Your task to perform on an android device: all mails in gmail Image 0: 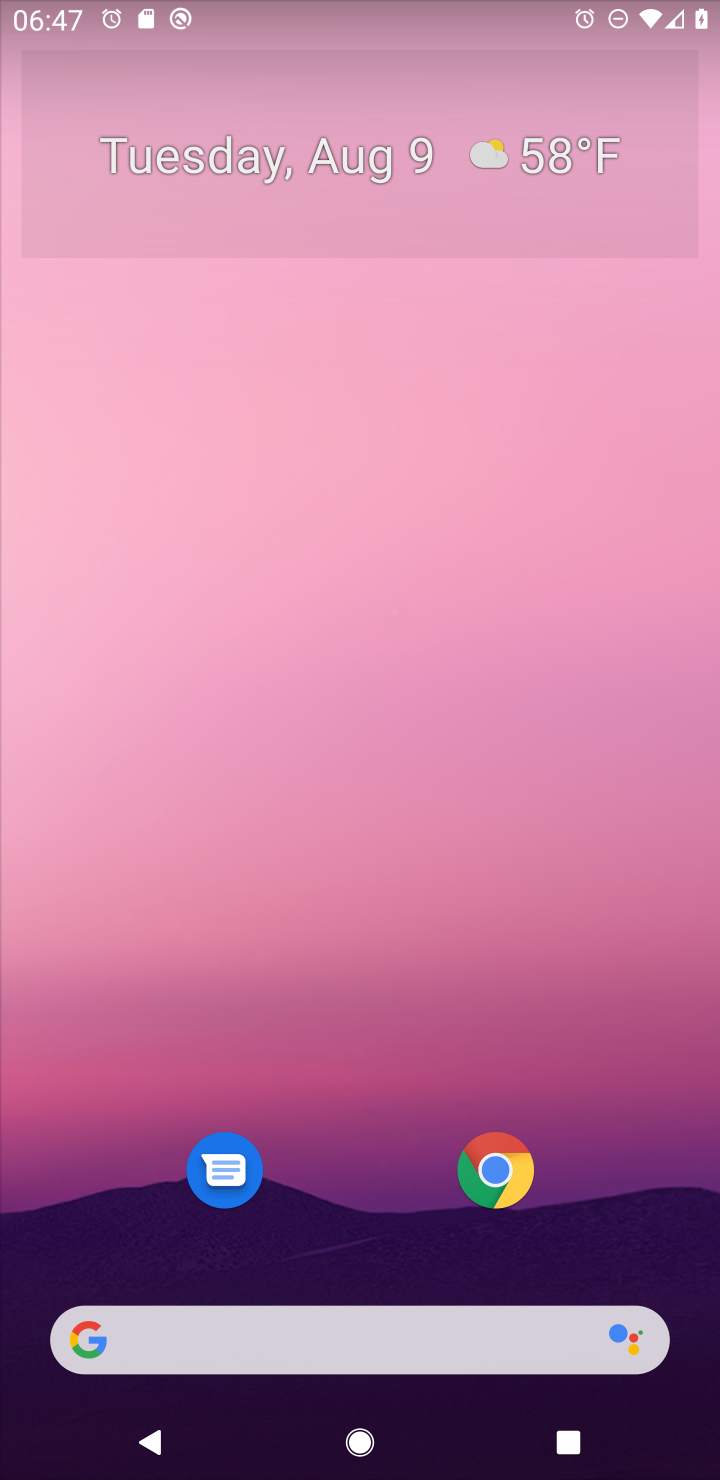
Step 0: press home button
Your task to perform on an android device: all mails in gmail Image 1: 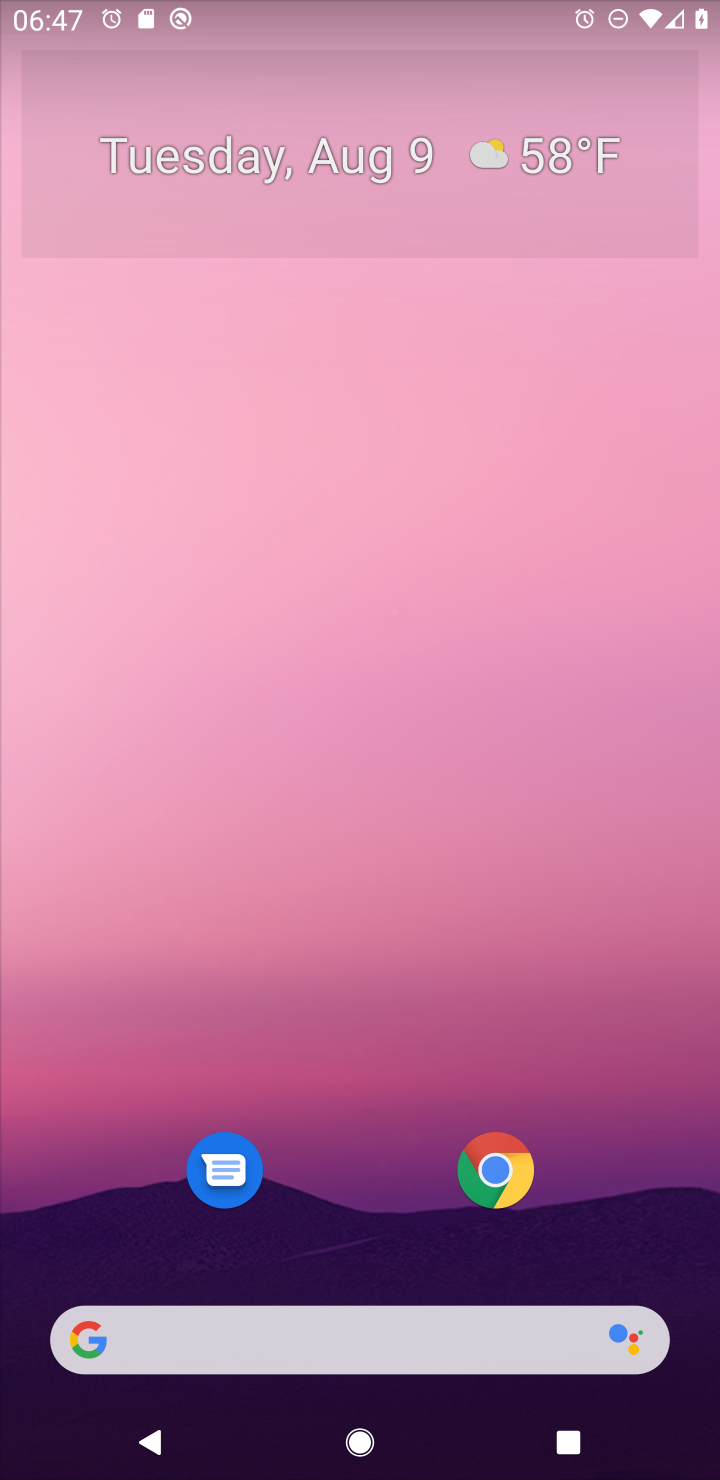
Step 1: drag from (387, 1243) to (412, 297)
Your task to perform on an android device: all mails in gmail Image 2: 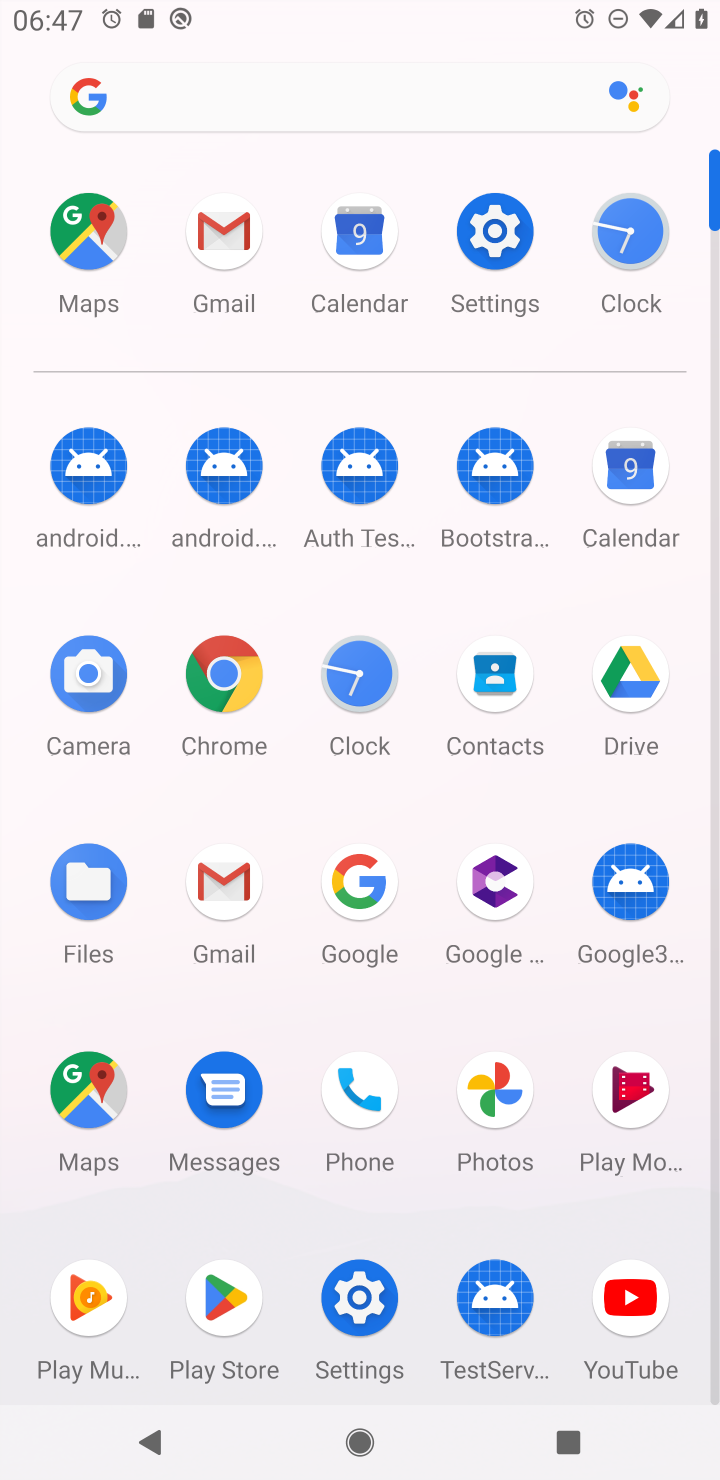
Step 2: click (225, 229)
Your task to perform on an android device: all mails in gmail Image 3: 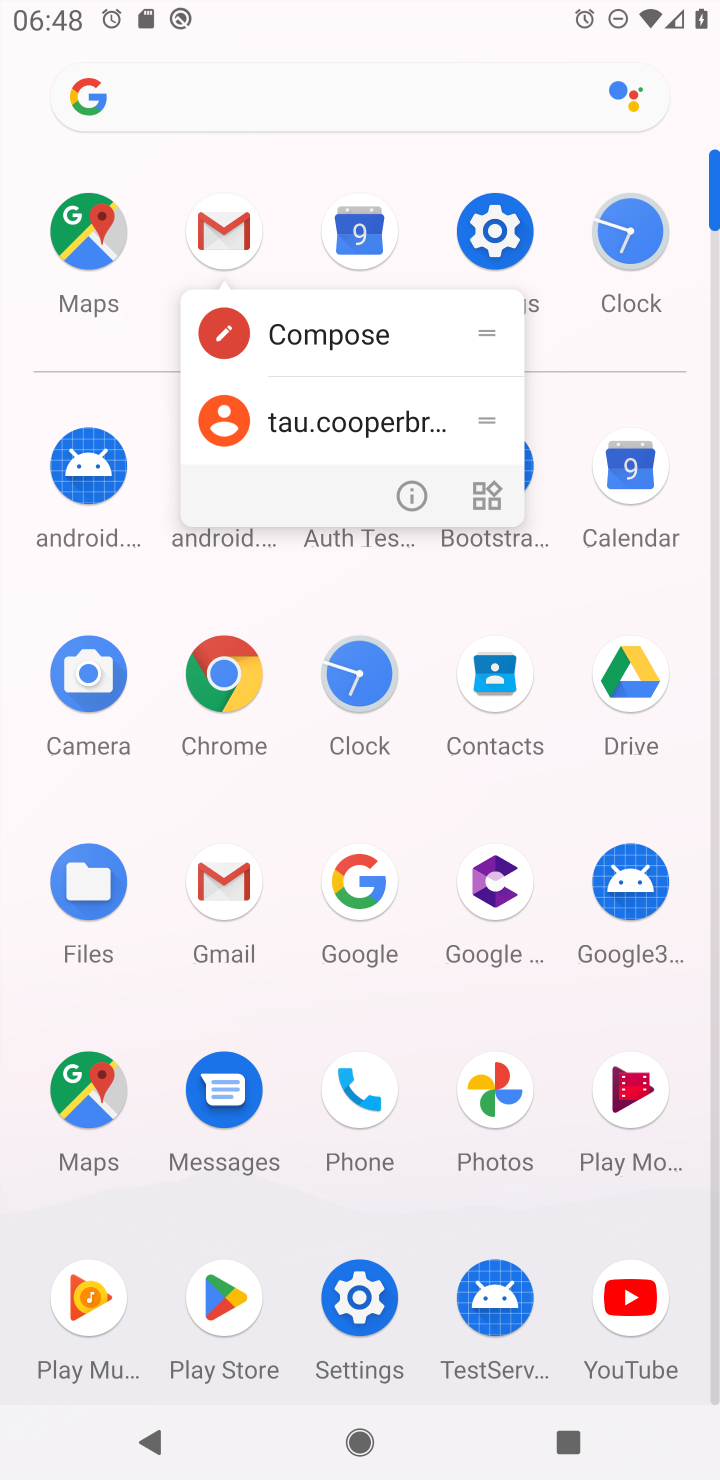
Step 3: click (236, 222)
Your task to perform on an android device: all mails in gmail Image 4: 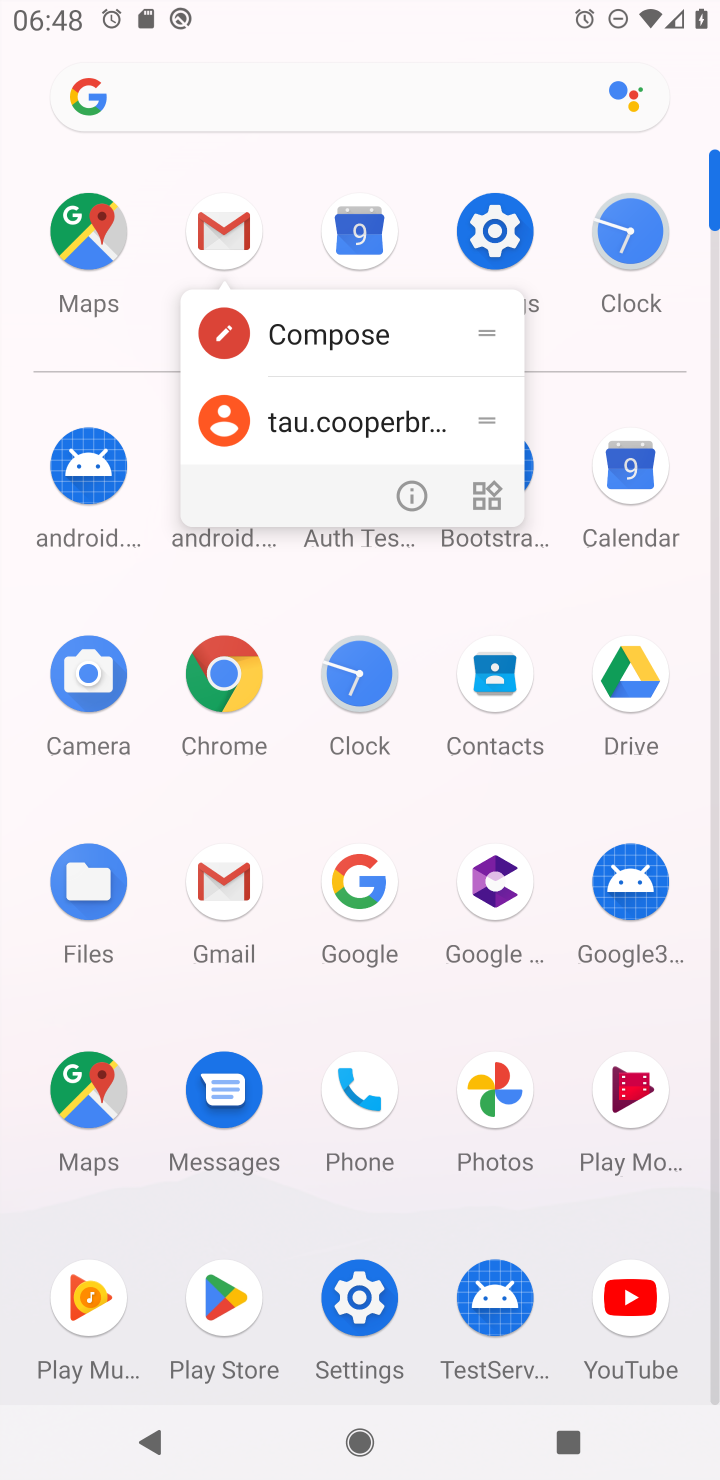
Step 4: click (236, 228)
Your task to perform on an android device: all mails in gmail Image 5: 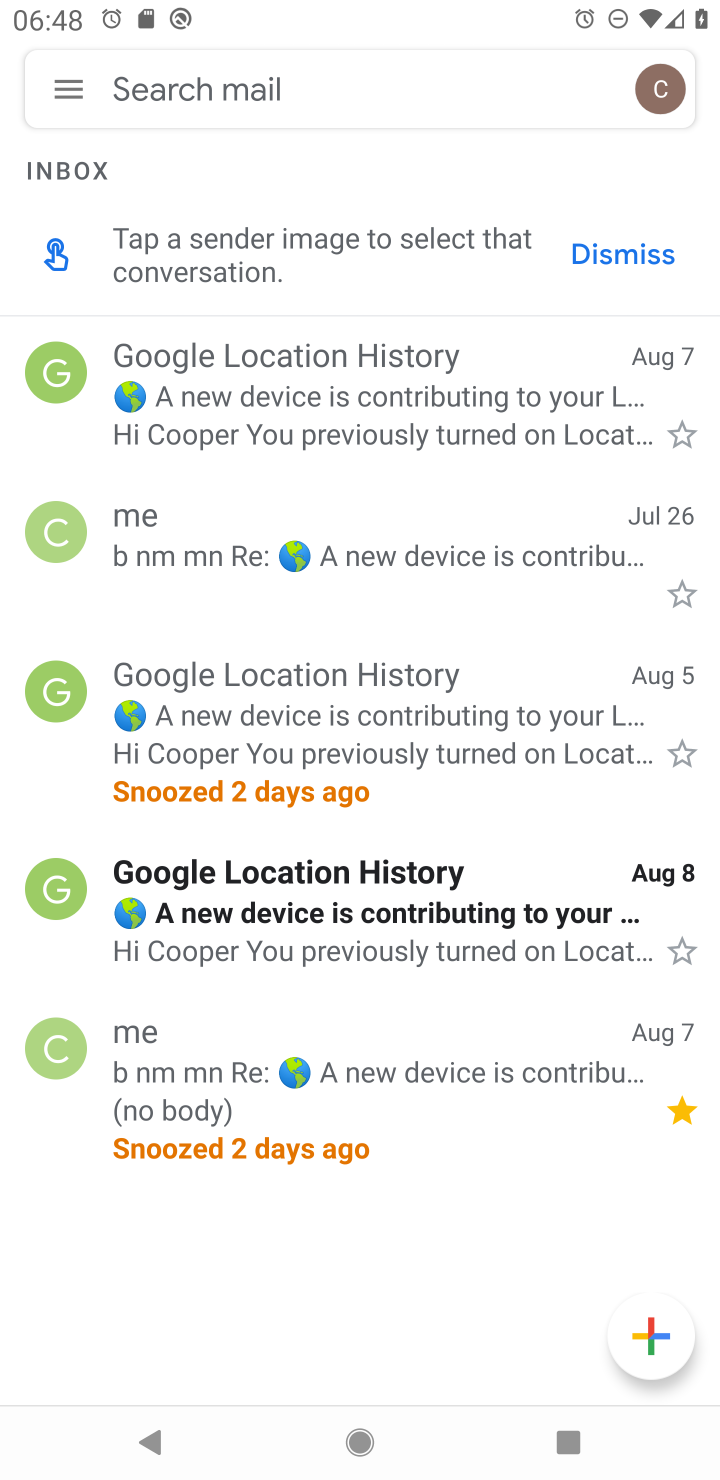
Step 5: click (62, 91)
Your task to perform on an android device: all mails in gmail Image 6: 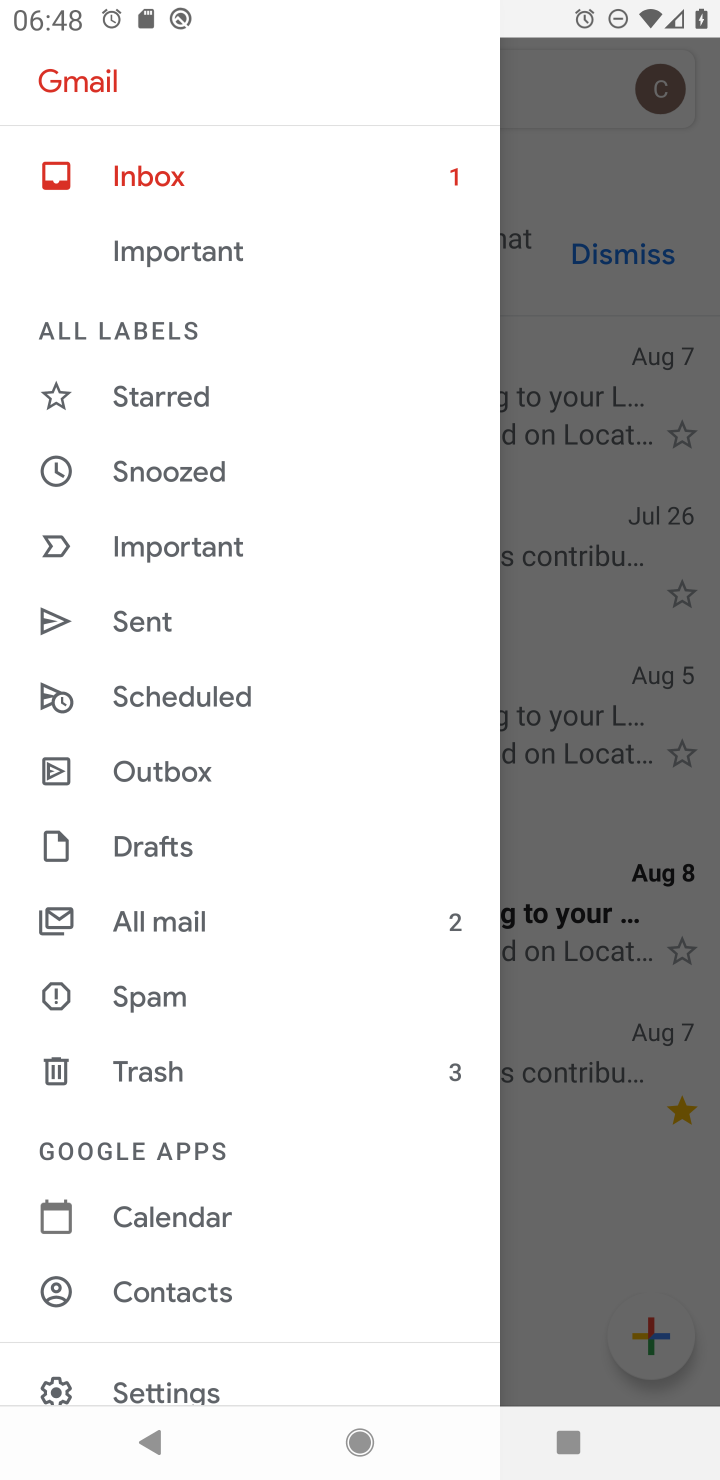
Step 6: click (148, 927)
Your task to perform on an android device: all mails in gmail Image 7: 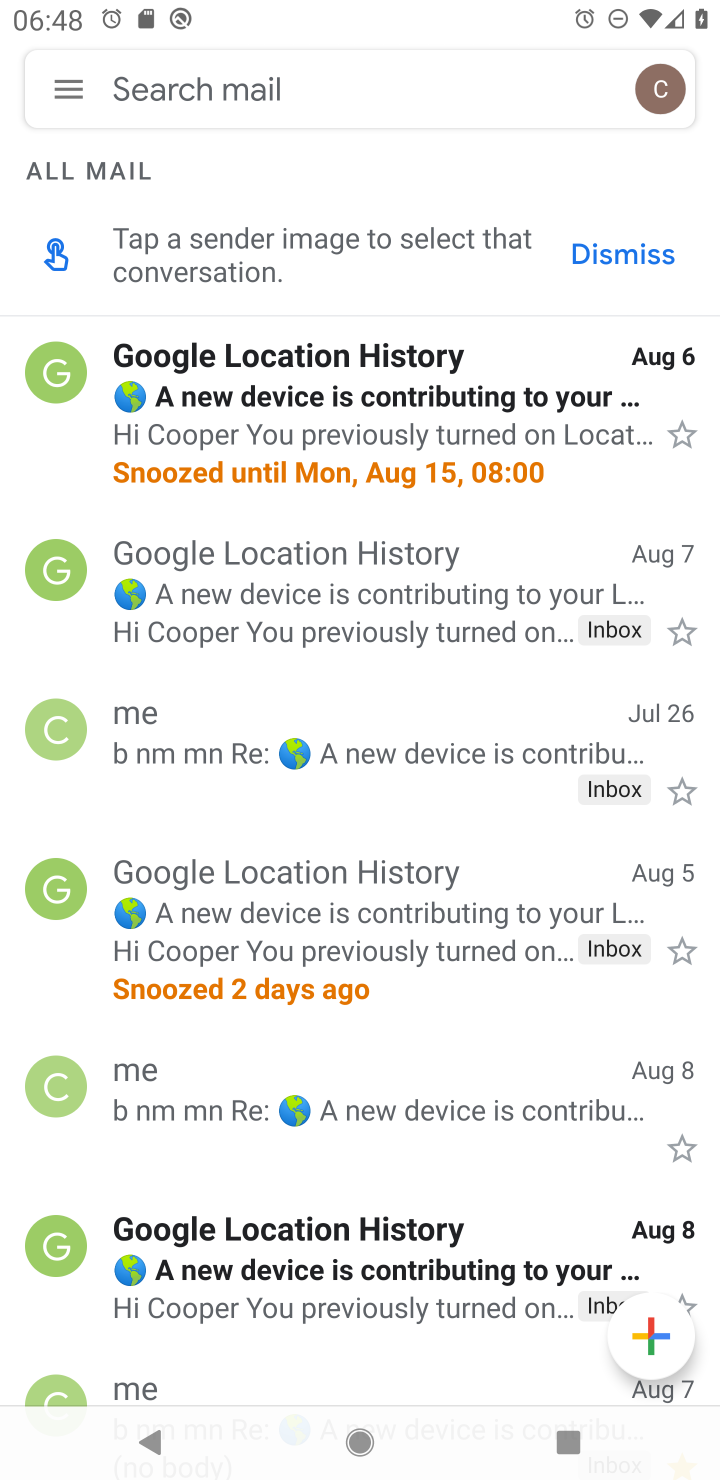
Step 7: task complete